Your task to perform on an android device: Open Youtube and go to "Your channel" Image 0: 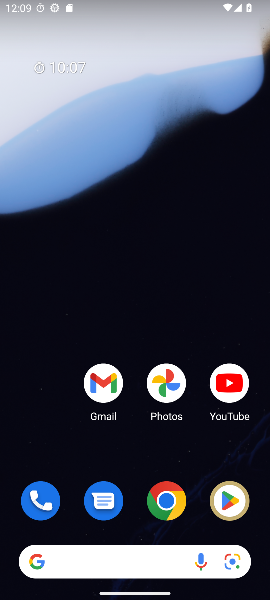
Step 0: click (236, 375)
Your task to perform on an android device: Open Youtube and go to "Your channel" Image 1: 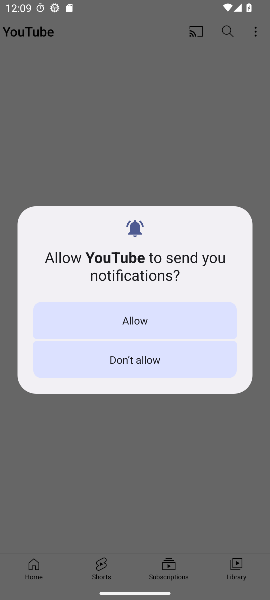
Step 1: click (157, 322)
Your task to perform on an android device: Open Youtube and go to "Your channel" Image 2: 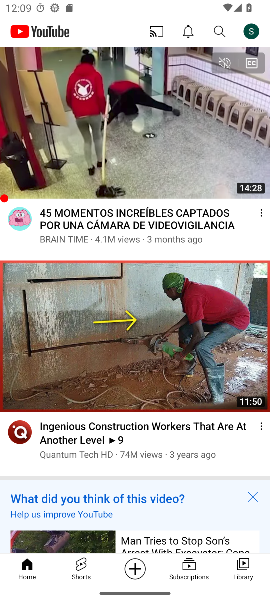
Step 2: click (247, 34)
Your task to perform on an android device: Open Youtube and go to "Your channel" Image 3: 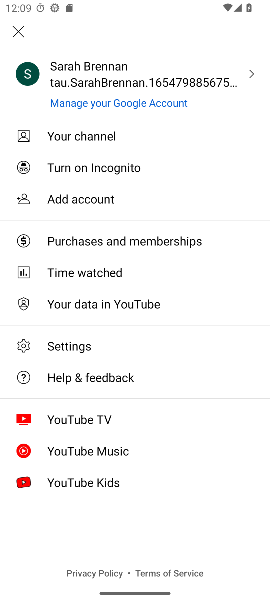
Step 3: click (71, 141)
Your task to perform on an android device: Open Youtube and go to "Your channel" Image 4: 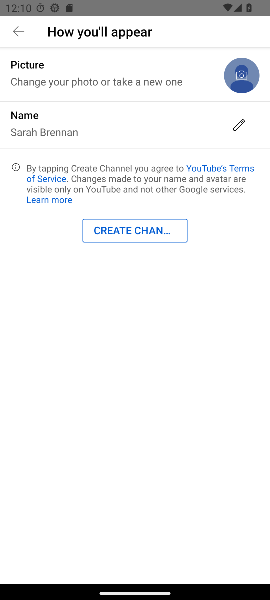
Step 4: task complete